Your task to perform on an android device: turn off javascript in the chrome app Image 0: 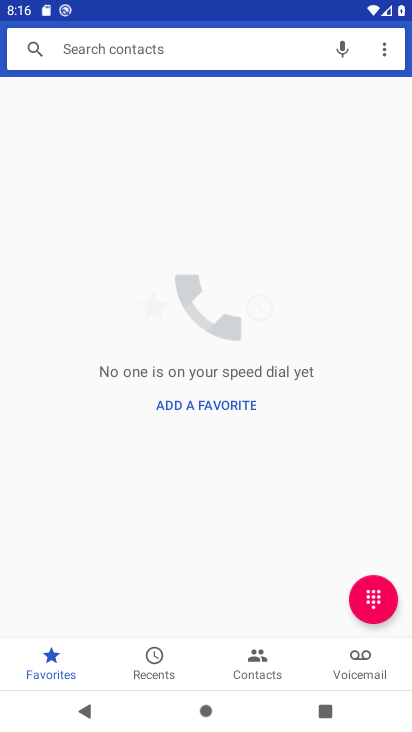
Step 0: press home button
Your task to perform on an android device: turn off javascript in the chrome app Image 1: 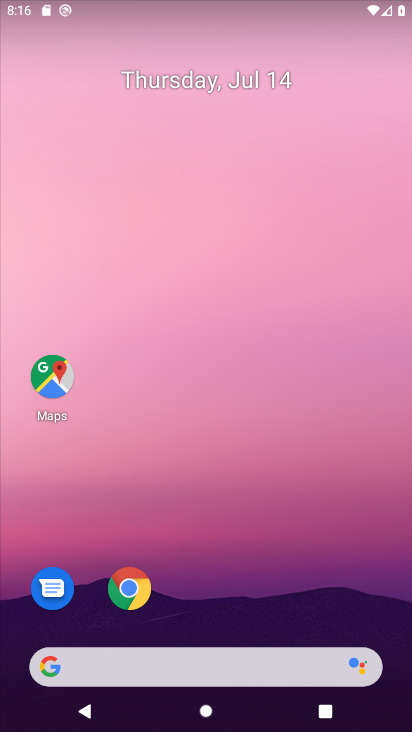
Step 1: drag from (359, 625) to (371, 113)
Your task to perform on an android device: turn off javascript in the chrome app Image 2: 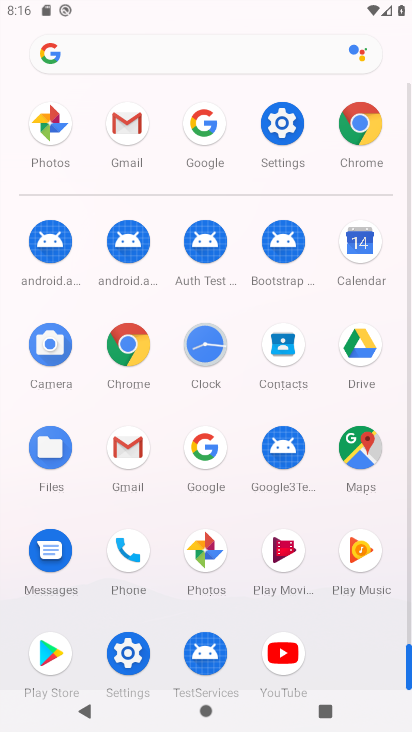
Step 2: click (364, 134)
Your task to perform on an android device: turn off javascript in the chrome app Image 3: 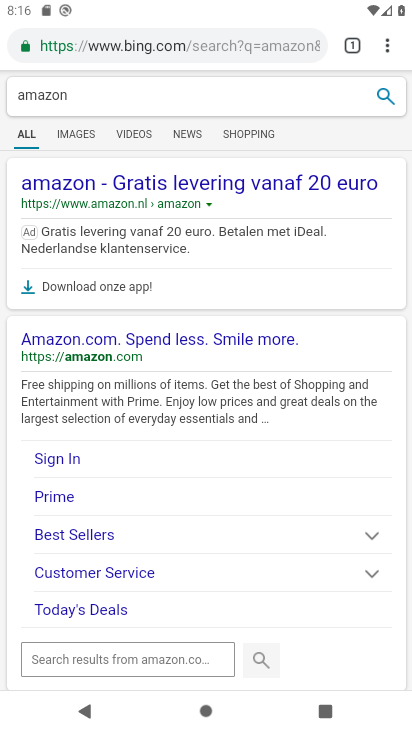
Step 3: click (388, 46)
Your task to perform on an android device: turn off javascript in the chrome app Image 4: 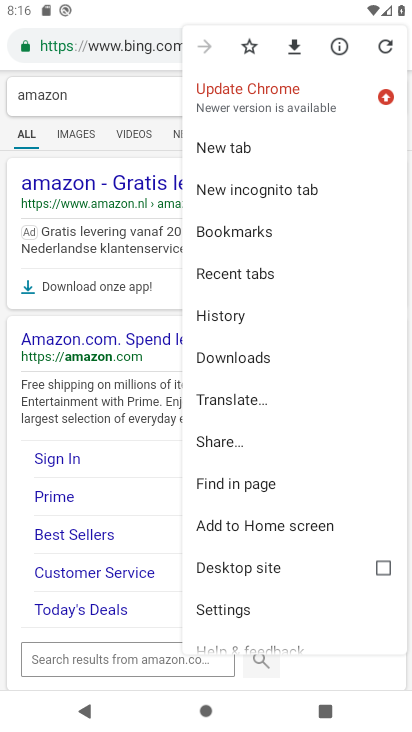
Step 4: drag from (342, 419) to (351, 323)
Your task to perform on an android device: turn off javascript in the chrome app Image 5: 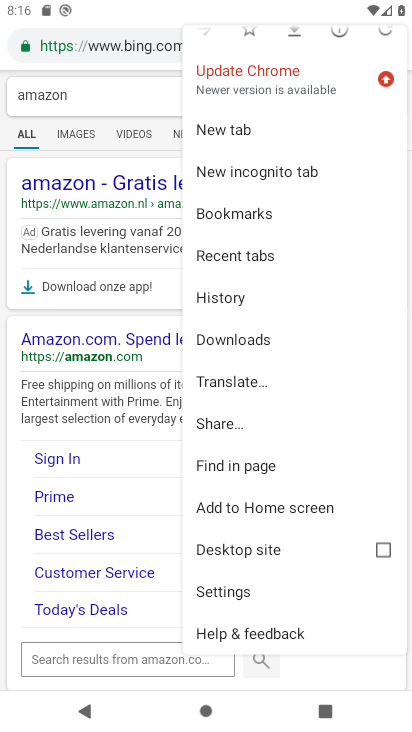
Step 5: click (311, 595)
Your task to perform on an android device: turn off javascript in the chrome app Image 6: 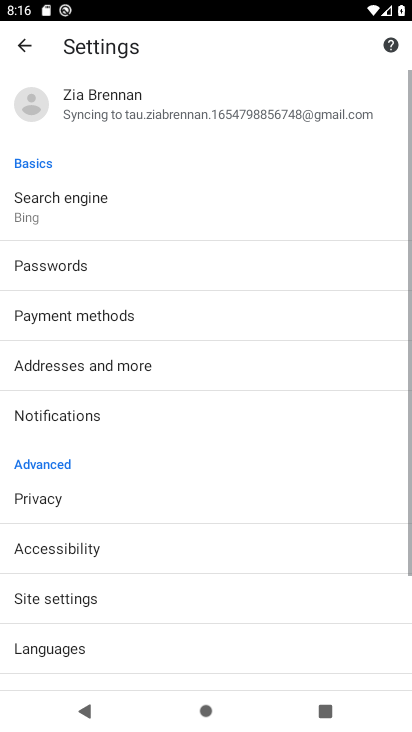
Step 6: drag from (329, 563) to (330, 486)
Your task to perform on an android device: turn off javascript in the chrome app Image 7: 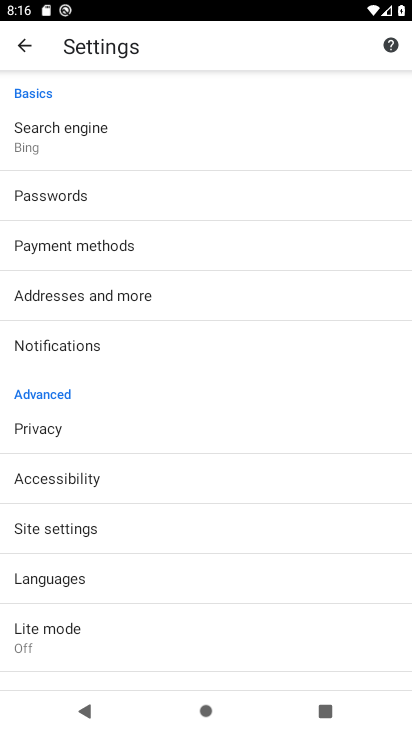
Step 7: drag from (330, 551) to (330, 457)
Your task to perform on an android device: turn off javascript in the chrome app Image 8: 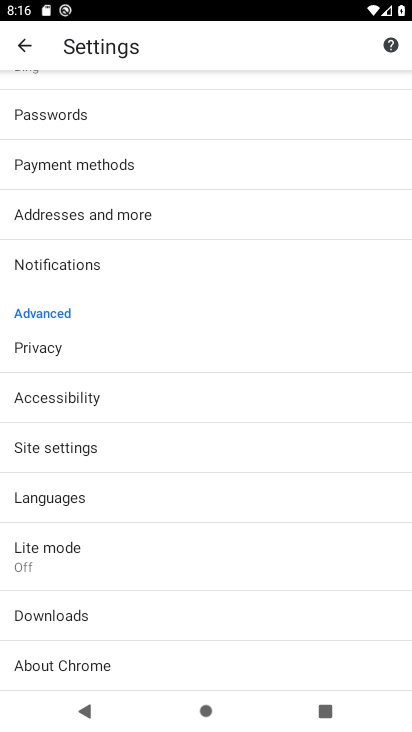
Step 8: drag from (325, 531) to (325, 449)
Your task to perform on an android device: turn off javascript in the chrome app Image 9: 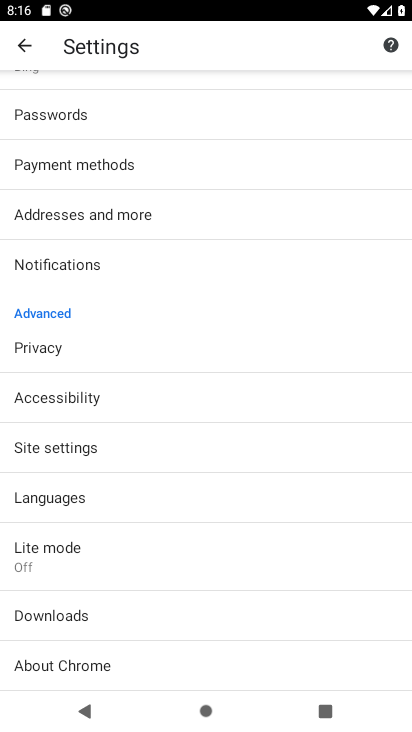
Step 9: drag from (326, 289) to (335, 498)
Your task to perform on an android device: turn off javascript in the chrome app Image 10: 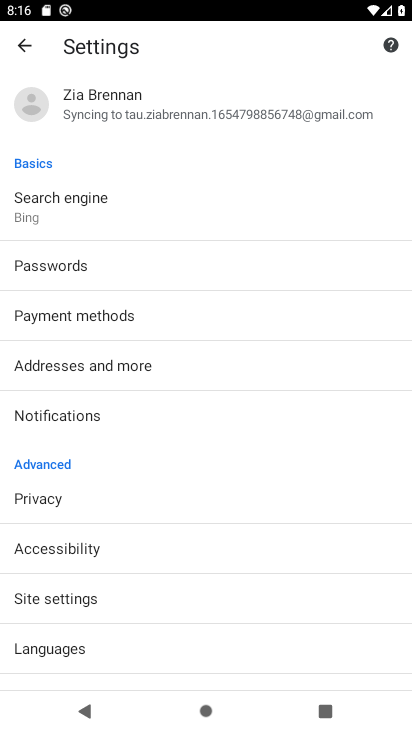
Step 10: drag from (329, 535) to (337, 429)
Your task to perform on an android device: turn off javascript in the chrome app Image 11: 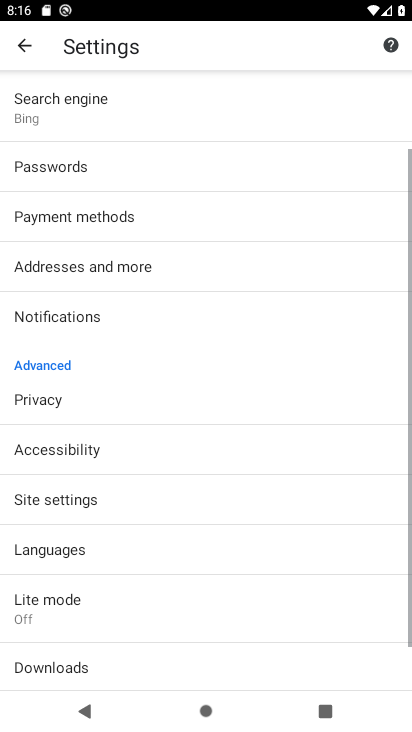
Step 11: drag from (337, 545) to (353, 326)
Your task to perform on an android device: turn off javascript in the chrome app Image 12: 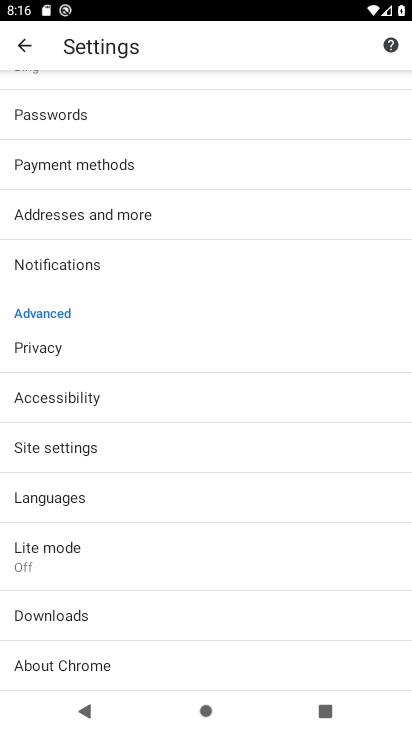
Step 12: click (316, 427)
Your task to perform on an android device: turn off javascript in the chrome app Image 13: 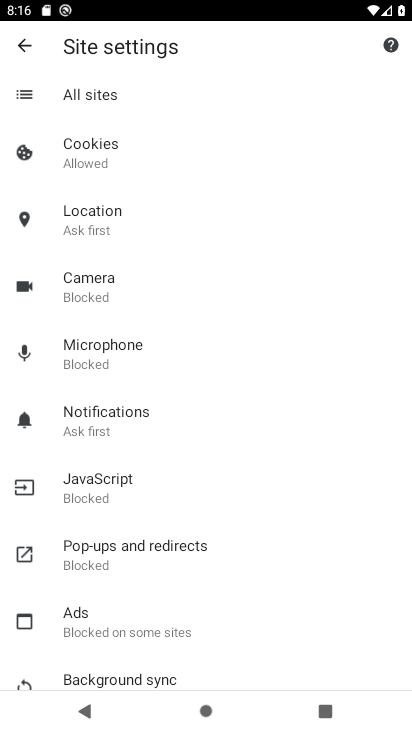
Step 13: drag from (321, 521) to (324, 375)
Your task to perform on an android device: turn off javascript in the chrome app Image 14: 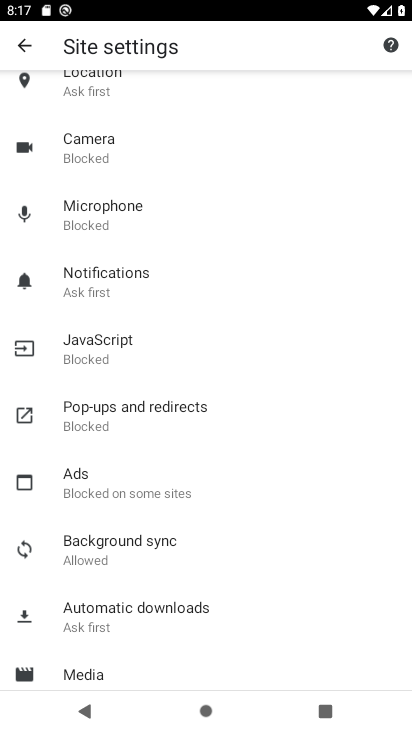
Step 14: drag from (328, 545) to (332, 372)
Your task to perform on an android device: turn off javascript in the chrome app Image 15: 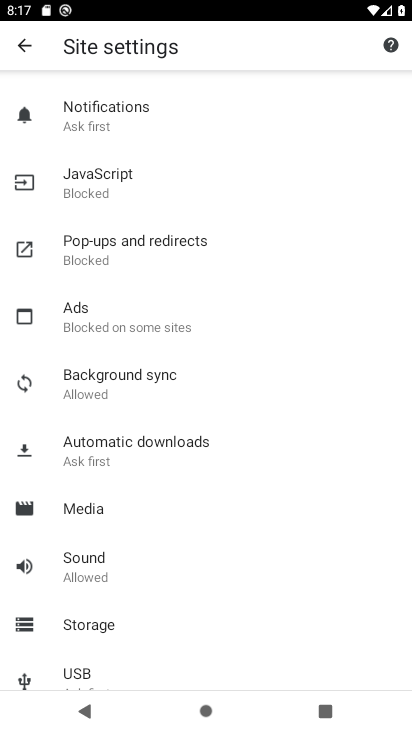
Step 15: drag from (339, 523) to (336, 403)
Your task to perform on an android device: turn off javascript in the chrome app Image 16: 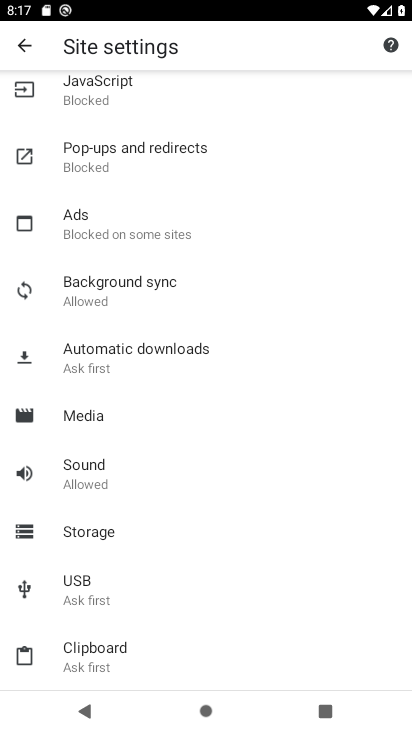
Step 16: drag from (323, 510) to (324, 393)
Your task to perform on an android device: turn off javascript in the chrome app Image 17: 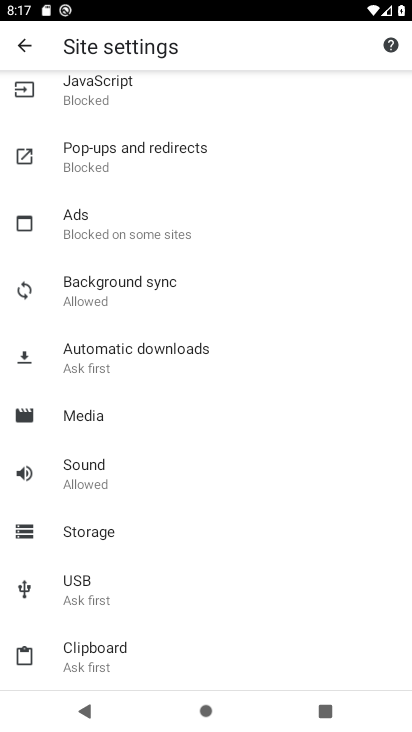
Step 17: drag from (324, 317) to (321, 373)
Your task to perform on an android device: turn off javascript in the chrome app Image 18: 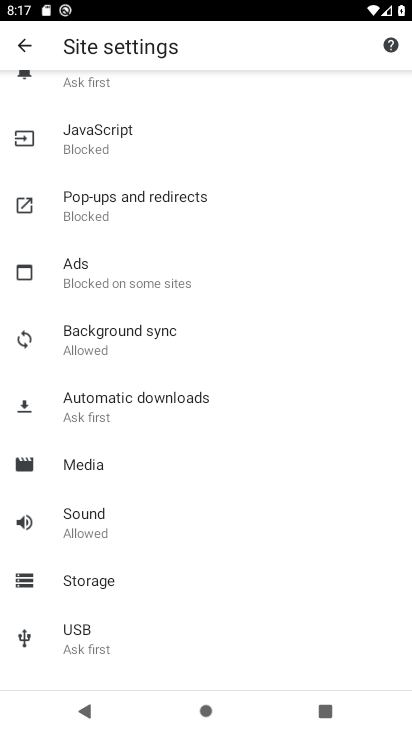
Step 18: drag from (315, 303) to (318, 381)
Your task to perform on an android device: turn off javascript in the chrome app Image 19: 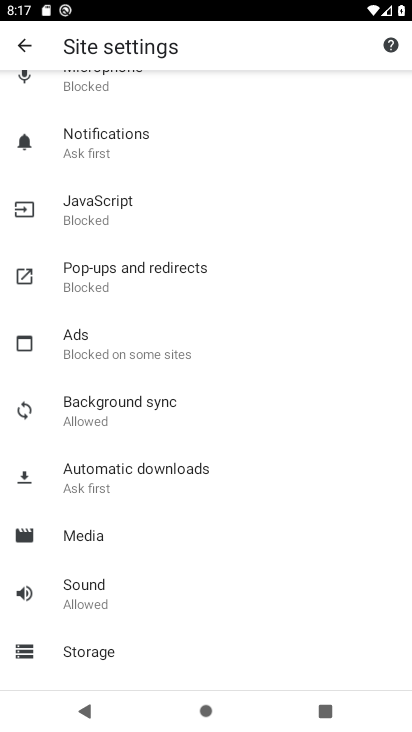
Step 19: drag from (322, 303) to (322, 416)
Your task to perform on an android device: turn off javascript in the chrome app Image 20: 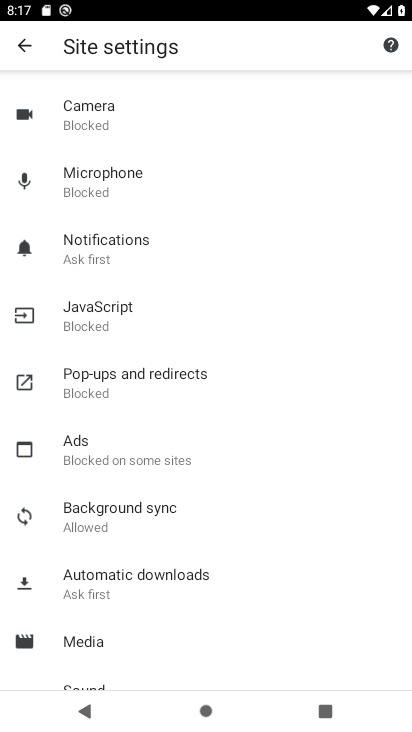
Step 20: drag from (322, 307) to (333, 566)
Your task to perform on an android device: turn off javascript in the chrome app Image 21: 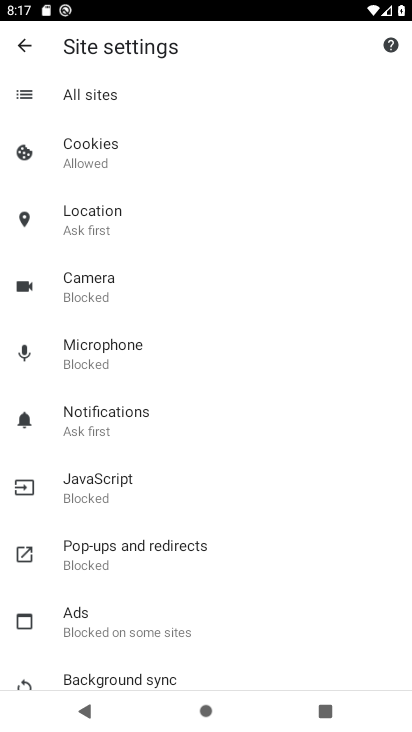
Step 21: click (204, 493)
Your task to perform on an android device: turn off javascript in the chrome app Image 22: 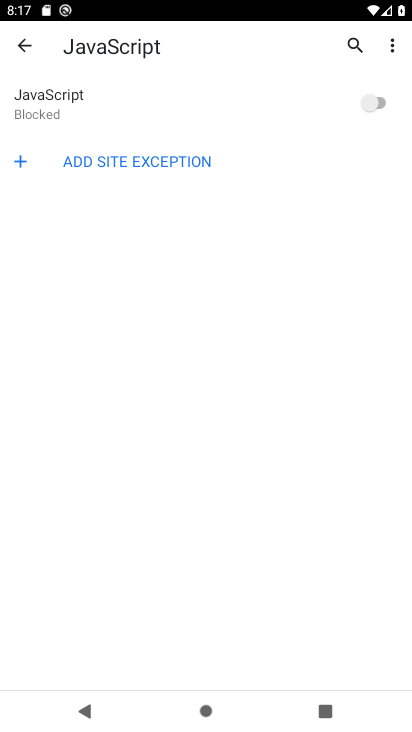
Step 22: task complete